Your task to perform on an android device: open chrome privacy settings Image 0: 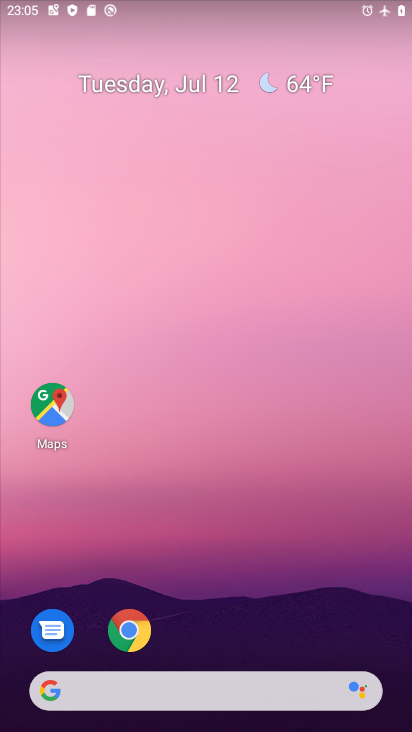
Step 0: drag from (211, 653) to (90, 54)
Your task to perform on an android device: open chrome privacy settings Image 1: 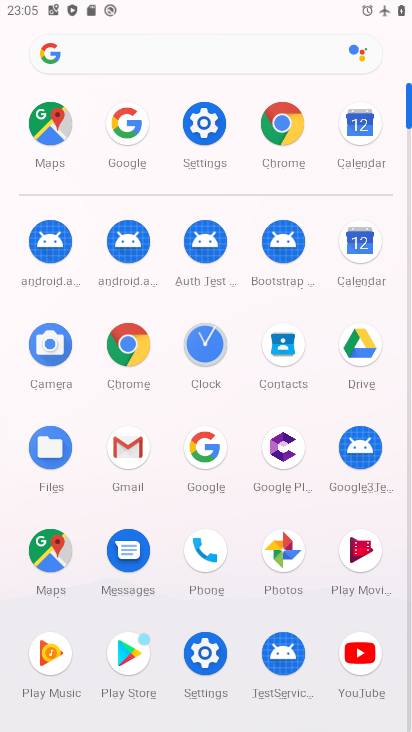
Step 1: click (292, 127)
Your task to perform on an android device: open chrome privacy settings Image 2: 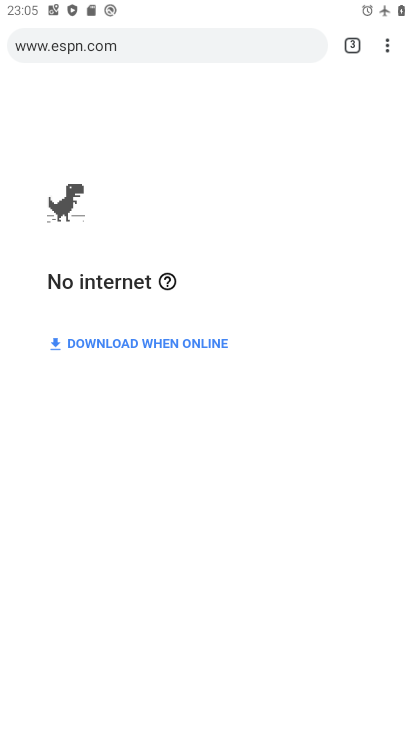
Step 2: drag from (389, 36) to (248, 524)
Your task to perform on an android device: open chrome privacy settings Image 3: 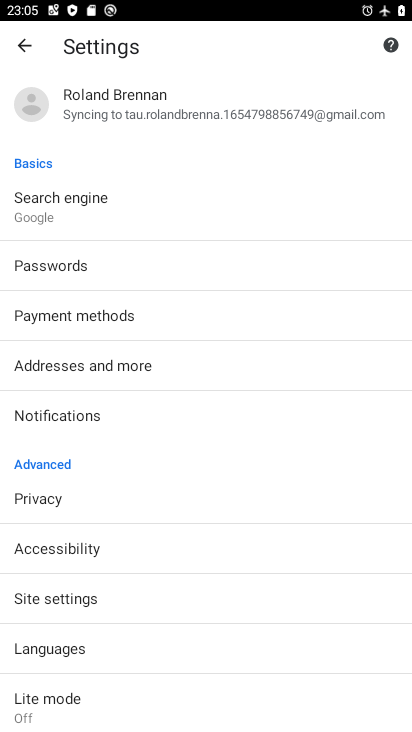
Step 3: click (64, 500)
Your task to perform on an android device: open chrome privacy settings Image 4: 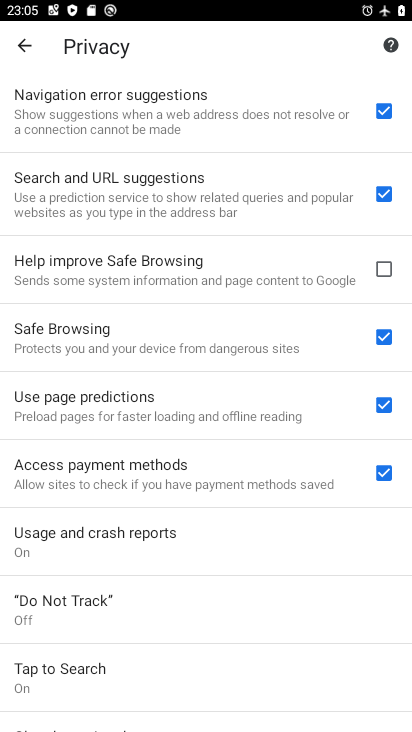
Step 4: task complete